Your task to perform on an android device: open the mobile data screen to see how much data has been used Image 0: 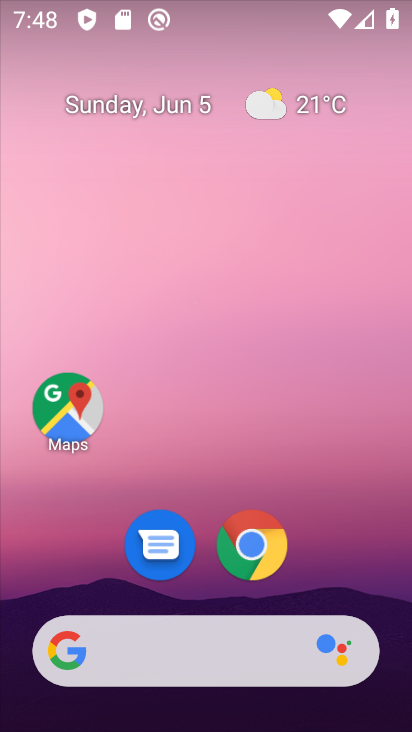
Step 0: drag from (380, 561) to (353, 141)
Your task to perform on an android device: open the mobile data screen to see how much data has been used Image 1: 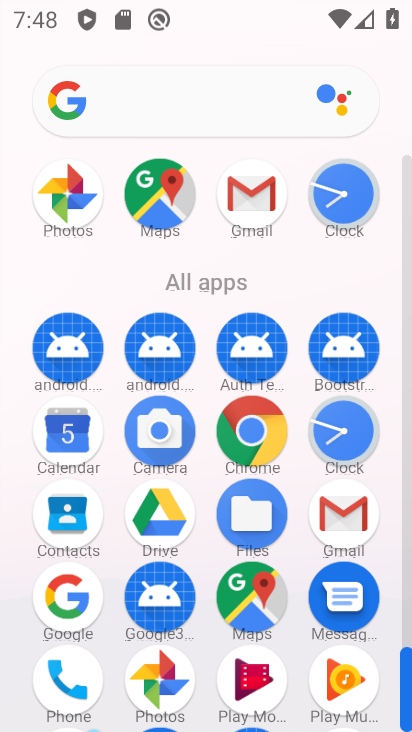
Step 1: drag from (385, 572) to (392, 331)
Your task to perform on an android device: open the mobile data screen to see how much data has been used Image 2: 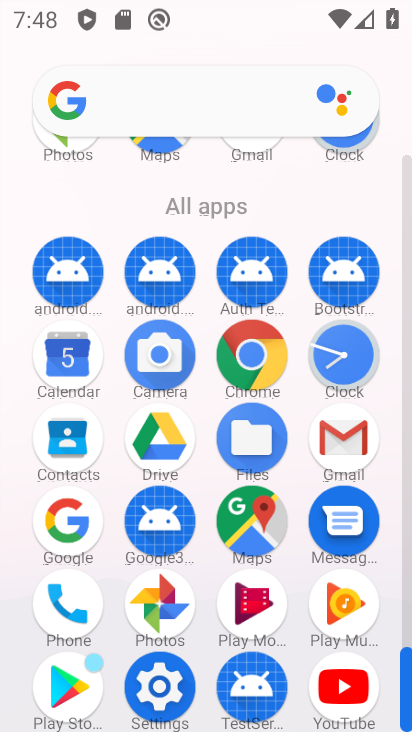
Step 2: click (175, 676)
Your task to perform on an android device: open the mobile data screen to see how much data has been used Image 3: 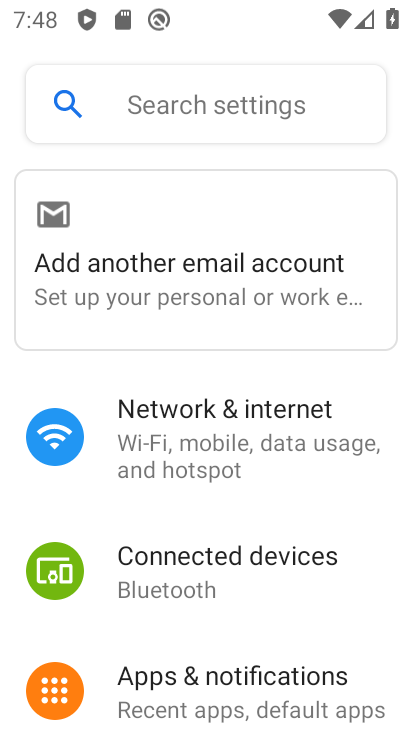
Step 3: drag from (348, 606) to (365, 511)
Your task to perform on an android device: open the mobile data screen to see how much data has been used Image 4: 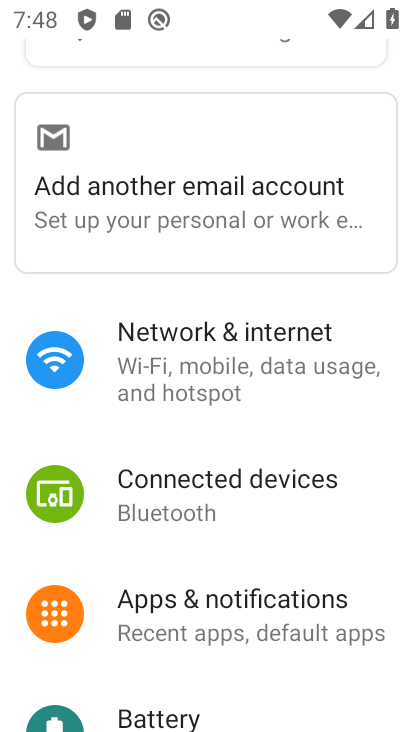
Step 4: drag from (383, 679) to (387, 541)
Your task to perform on an android device: open the mobile data screen to see how much data has been used Image 5: 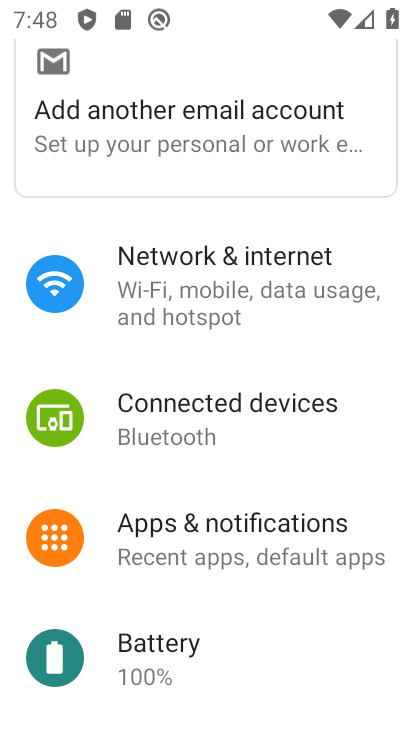
Step 5: drag from (369, 609) to (360, 485)
Your task to perform on an android device: open the mobile data screen to see how much data has been used Image 6: 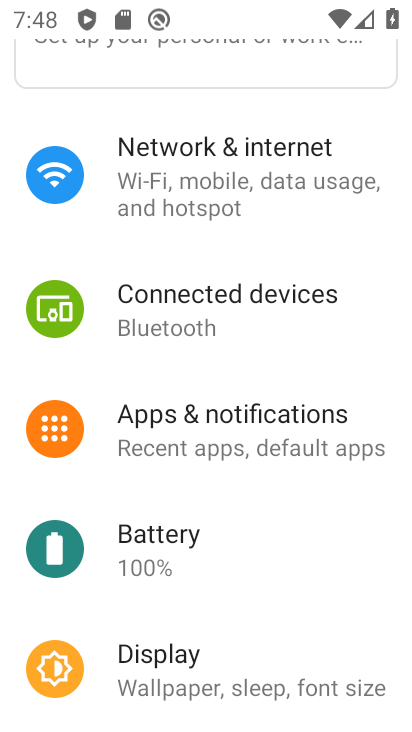
Step 6: drag from (351, 598) to (329, 479)
Your task to perform on an android device: open the mobile data screen to see how much data has been used Image 7: 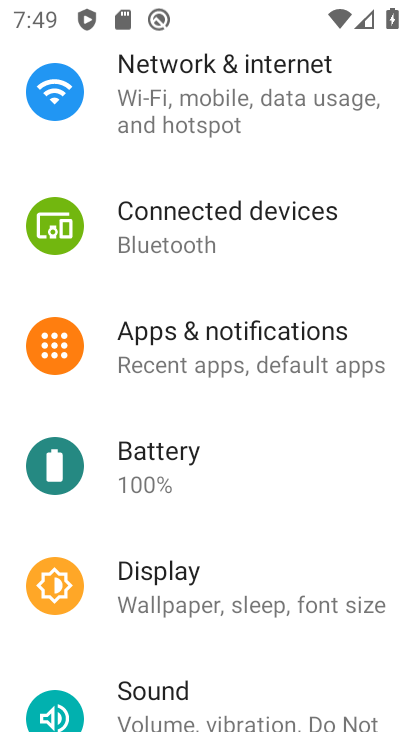
Step 7: drag from (315, 545) to (310, 448)
Your task to perform on an android device: open the mobile data screen to see how much data has been used Image 8: 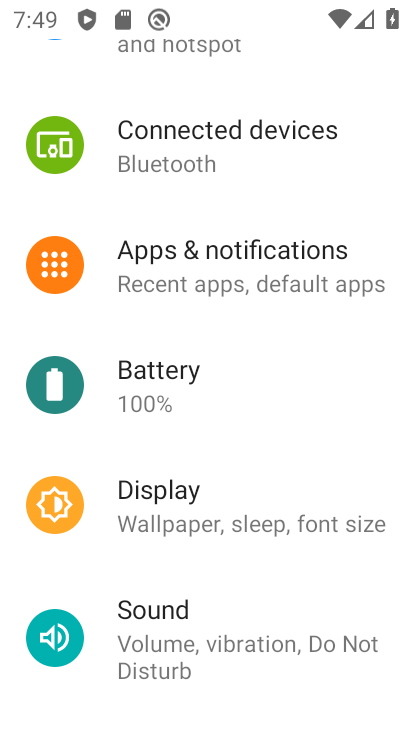
Step 8: drag from (342, 560) to (357, 445)
Your task to perform on an android device: open the mobile data screen to see how much data has been used Image 9: 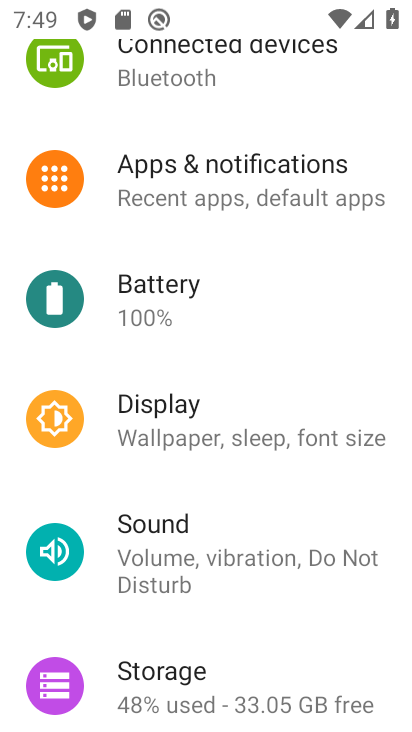
Step 9: drag from (371, 607) to (353, 489)
Your task to perform on an android device: open the mobile data screen to see how much data has been used Image 10: 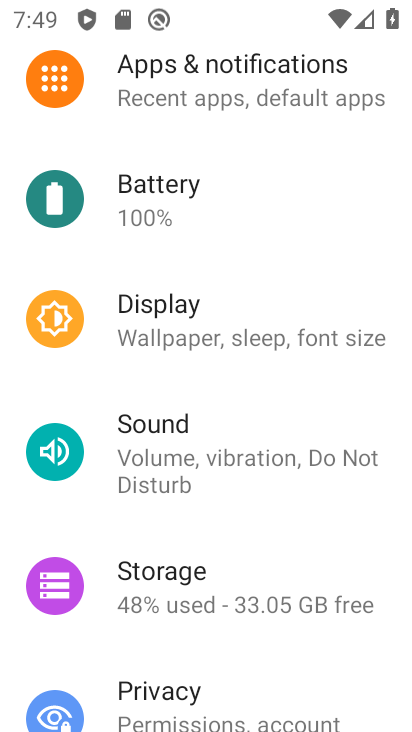
Step 10: drag from (338, 548) to (333, 394)
Your task to perform on an android device: open the mobile data screen to see how much data has been used Image 11: 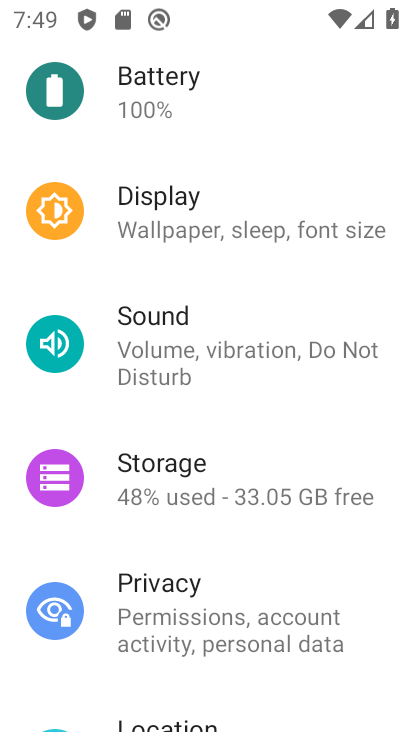
Step 11: drag from (343, 551) to (343, 407)
Your task to perform on an android device: open the mobile data screen to see how much data has been used Image 12: 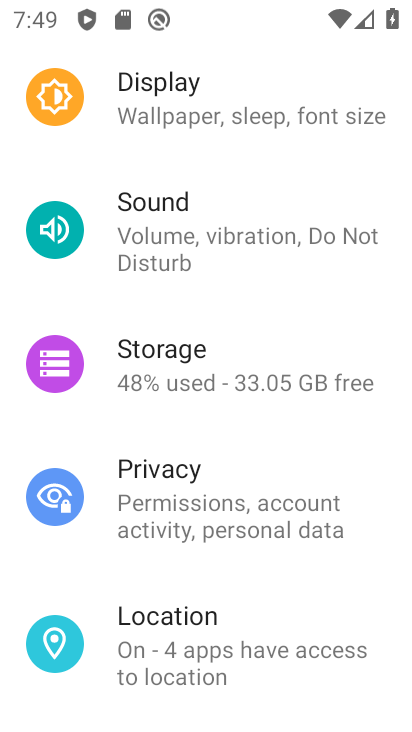
Step 12: drag from (354, 584) to (361, 453)
Your task to perform on an android device: open the mobile data screen to see how much data has been used Image 13: 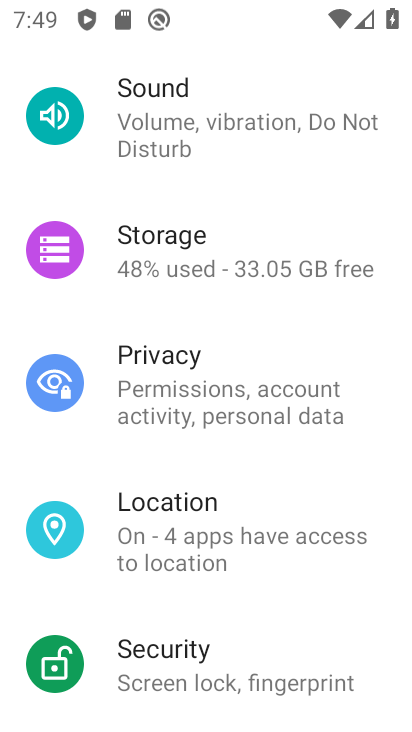
Step 13: drag from (362, 336) to (359, 449)
Your task to perform on an android device: open the mobile data screen to see how much data has been used Image 14: 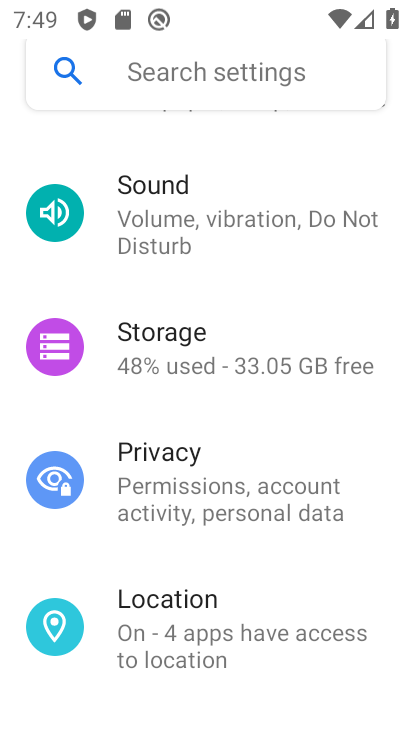
Step 14: drag from (365, 289) to (365, 402)
Your task to perform on an android device: open the mobile data screen to see how much data has been used Image 15: 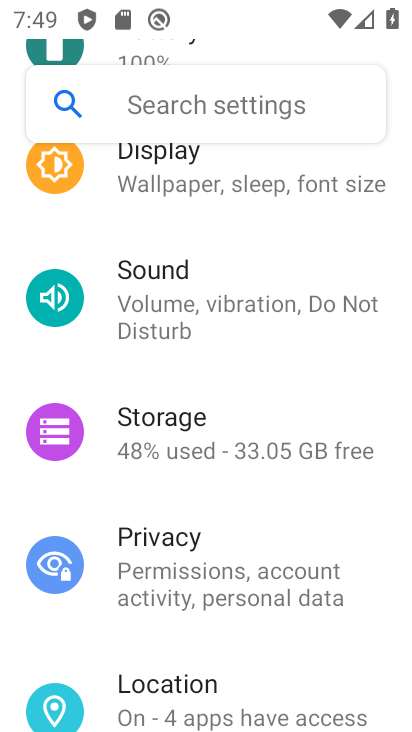
Step 15: drag from (378, 269) to (380, 371)
Your task to perform on an android device: open the mobile data screen to see how much data has been used Image 16: 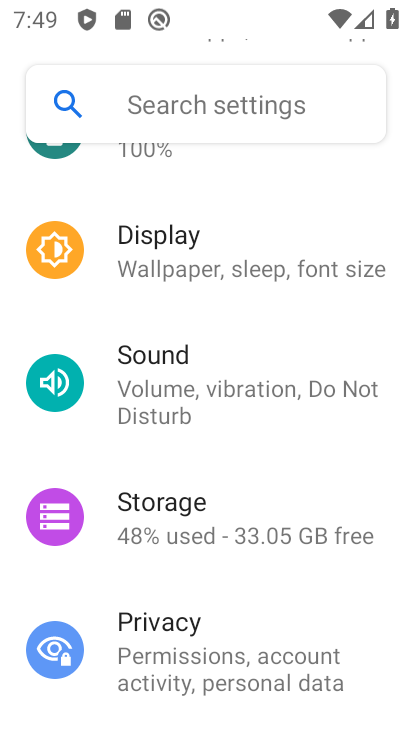
Step 16: drag from (360, 212) to (355, 338)
Your task to perform on an android device: open the mobile data screen to see how much data has been used Image 17: 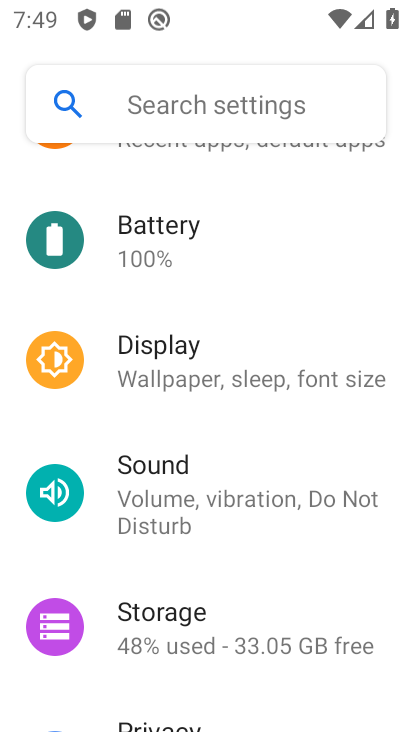
Step 17: drag from (361, 264) to (361, 374)
Your task to perform on an android device: open the mobile data screen to see how much data has been used Image 18: 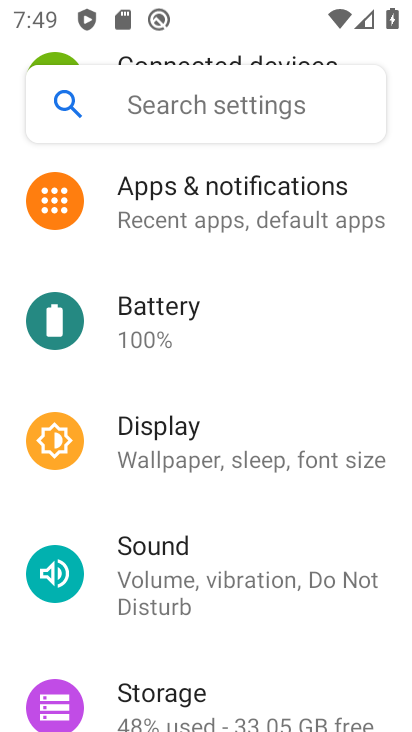
Step 18: drag from (360, 282) to (360, 391)
Your task to perform on an android device: open the mobile data screen to see how much data has been used Image 19: 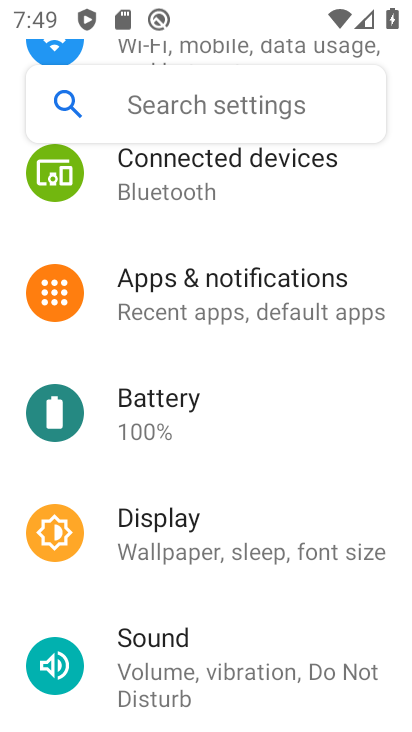
Step 19: drag from (368, 219) to (371, 364)
Your task to perform on an android device: open the mobile data screen to see how much data has been used Image 20: 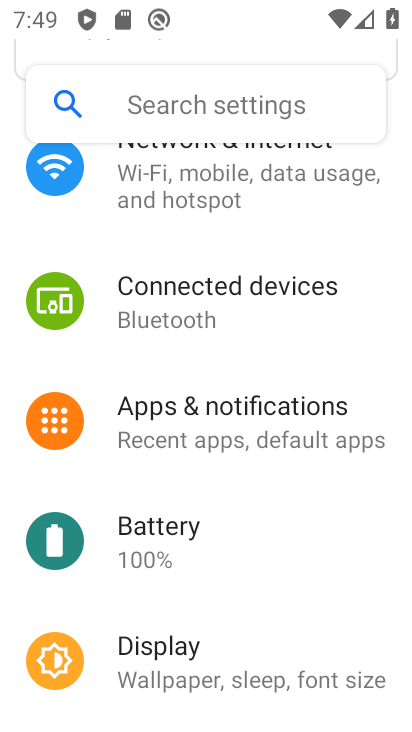
Step 20: drag from (377, 228) to (371, 427)
Your task to perform on an android device: open the mobile data screen to see how much data has been used Image 21: 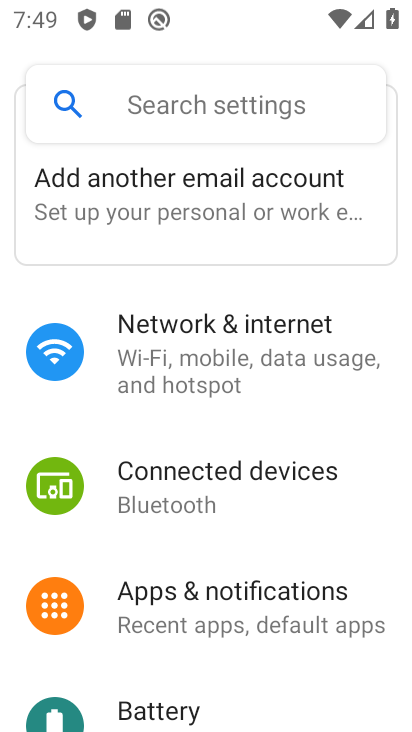
Step 21: click (262, 347)
Your task to perform on an android device: open the mobile data screen to see how much data has been used Image 22: 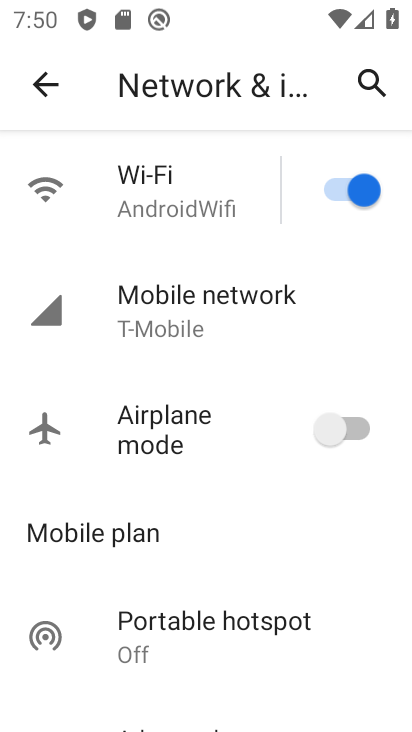
Step 22: click (243, 328)
Your task to perform on an android device: open the mobile data screen to see how much data has been used Image 23: 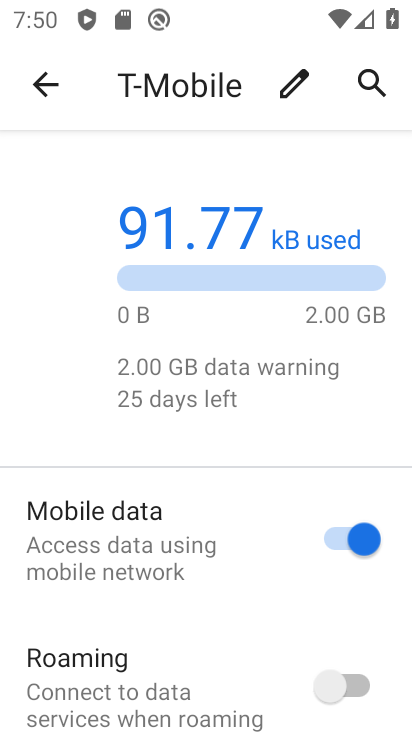
Step 23: drag from (267, 546) to (276, 427)
Your task to perform on an android device: open the mobile data screen to see how much data has been used Image 24: 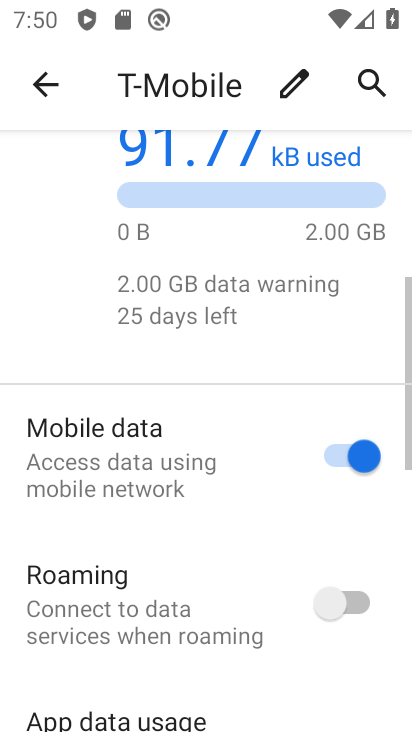
Step 24: drag from (262, 507) to (254, 375)
Your task to perform on an android device: open the mobile data screen to see how much data has been used Image 25: 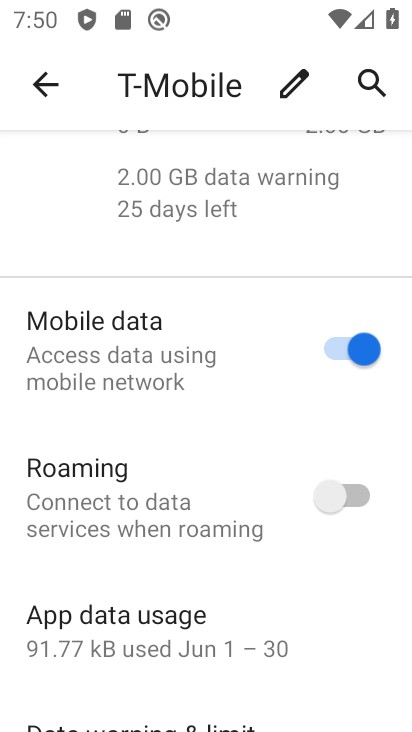
Step 25: drag from (268, 565) to (274, 409)
Your task to perform on an android device: open the mobile data screen to see how much data has been used Image 26: 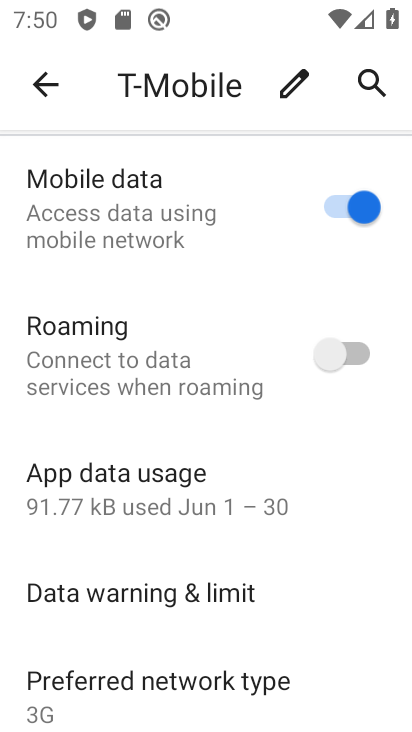
Step 26: click (185, 505)
Your task to perform on an android device: open the mobile data screen to see how much data has been used Image 27: 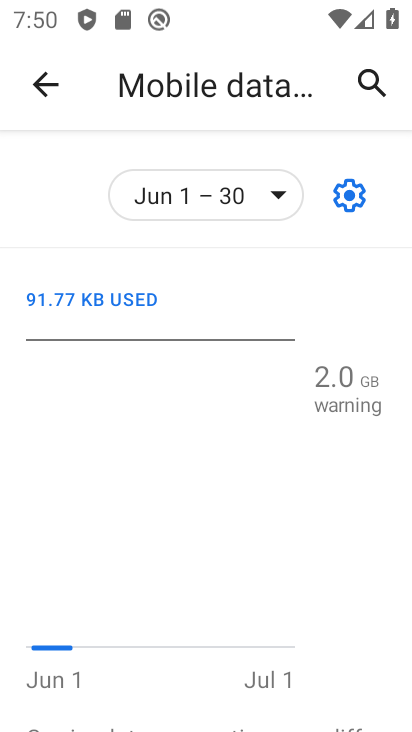
Step 27: task complete